Your task to perform on an android device: turn off airplane mode Image 0: 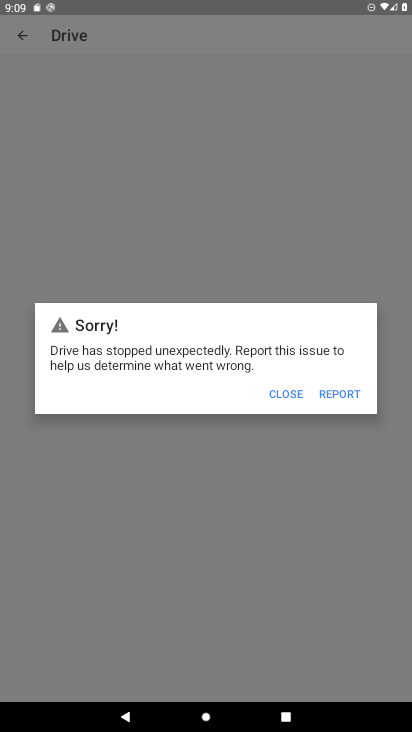
Step 0: click (219, 300)
Your task to perform on an android device: turn off airplane mode Image 1: 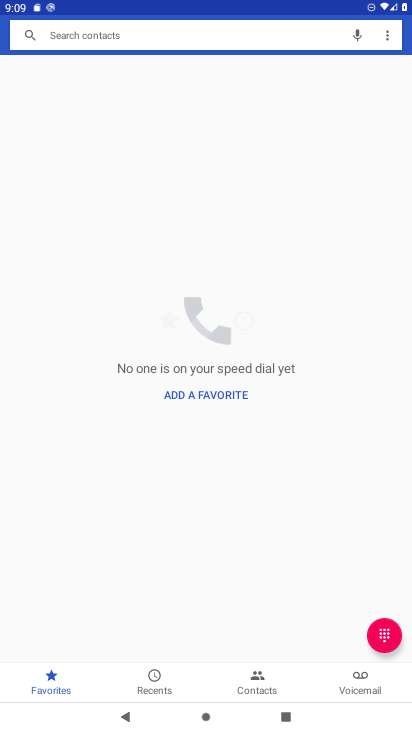
Step 1: press home button
Your task to perform on an android device: turn off airplane mode Image 2: 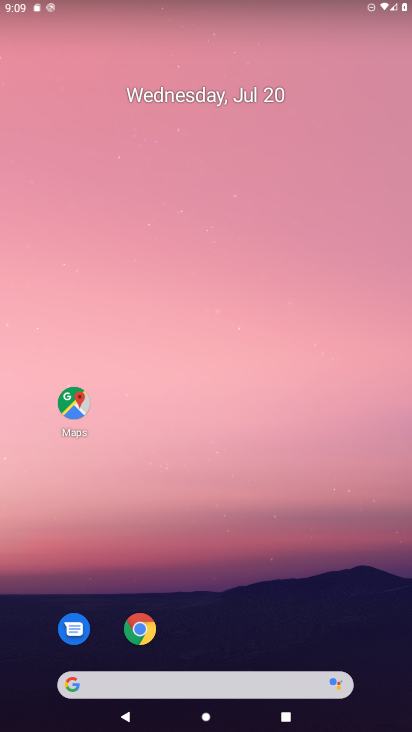
Step 2: drag from (367, 620) to (313, 91)
Your task to perform on an android device: turn off airplane mode Image 3: 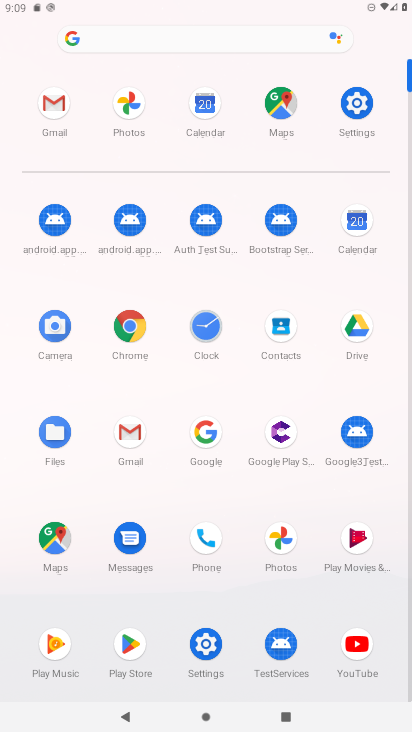
Step 3: click (204, 644)
Your task to perform on an android device: turn off airplane mode Image 4: 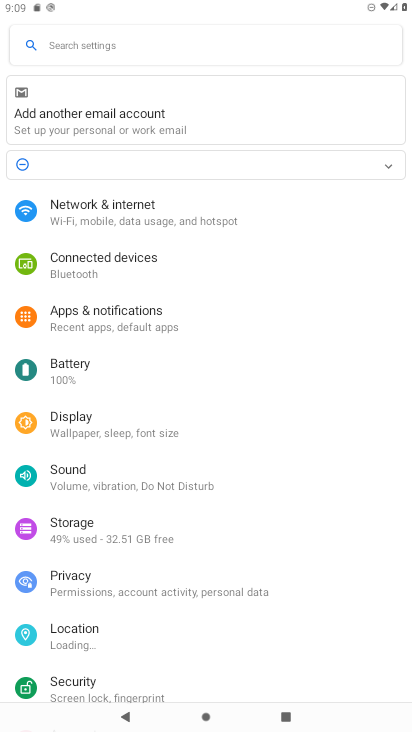
Step 4: click (112, 203)
Your task to perform on an android device: turn off airplane mode Image 5: 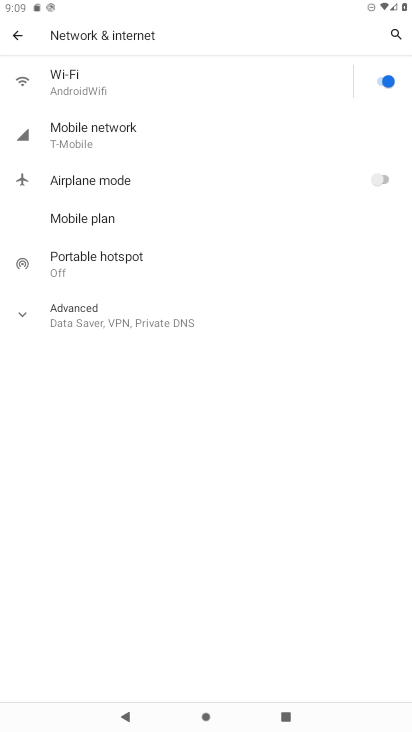
Step 5: task complete